Your task to perform on an android device: open app "DoorDash - Food Delivery" (install if not already installed), go to login, and select forgot password Image 0: 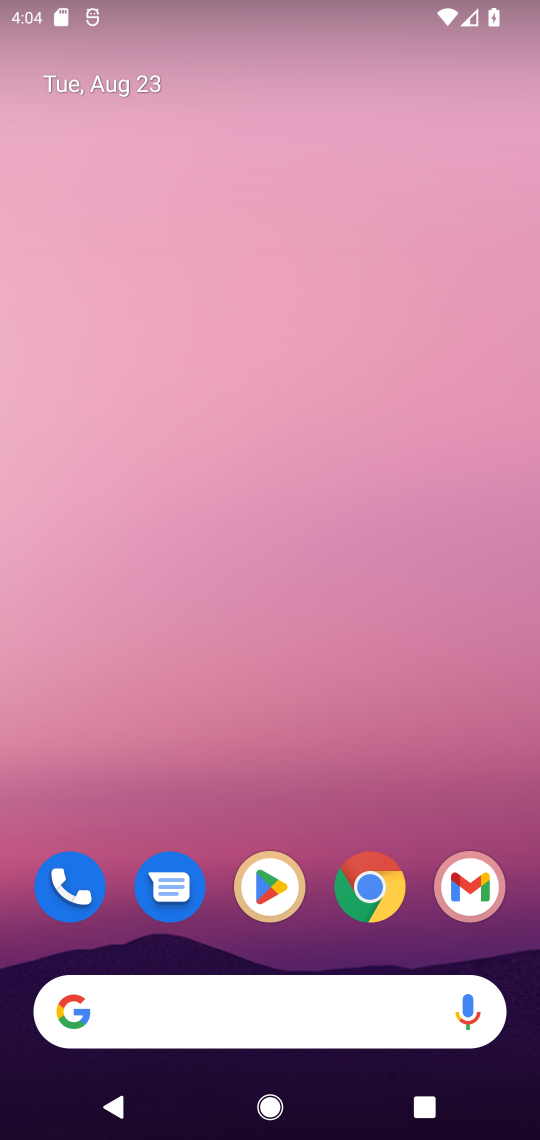
Step 0: click (278, 805)
Your task to perform on an android device: open app "DoorDash - Food Delivery" (install if not already installed), go to login, and select forgot password Image 1: 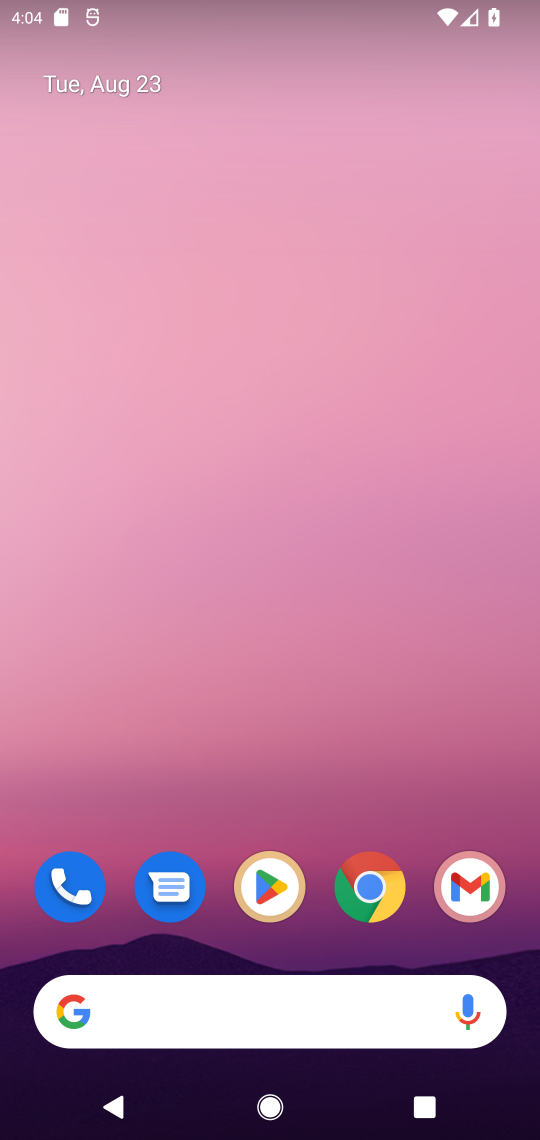
Step 1: click (270, 875)
Your task to perform on an android device: open app "DoorDash - Food Delivery" (install if not already installed), go to login, and select forgot password Image 2: 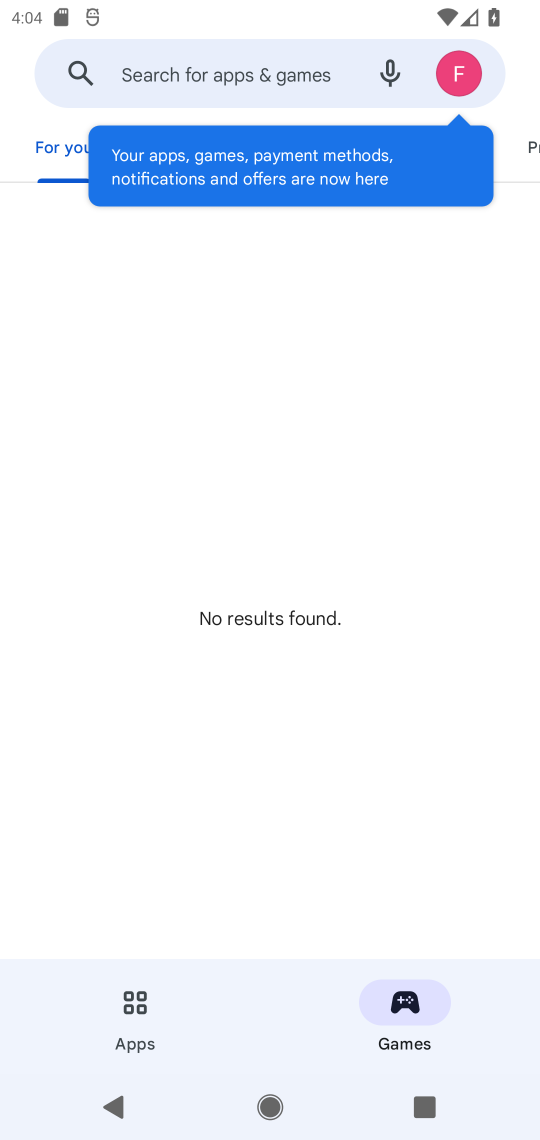
Step 2: click (216, 67)
Your task to perform on an android device: open app "DoorDash - Food Delivery" (install if not already installed), go to login, and select forgot password Image 3: 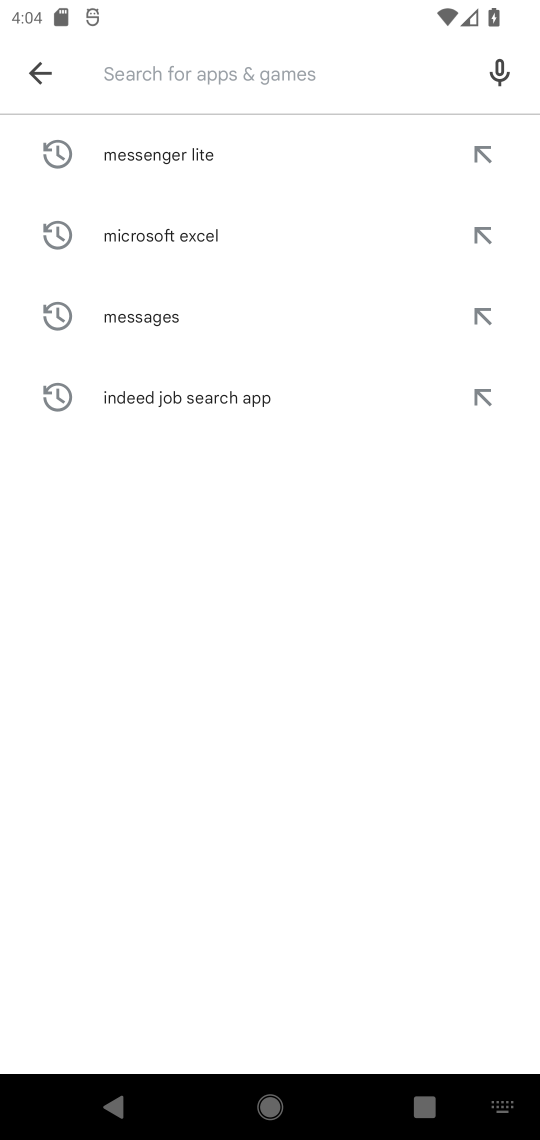
Step 3: type "DoorDash"
Your task to perform on an android device: open app "DoorDash - Food Delivery" (install if not already installed), go to login, and select forgot password Image 4: 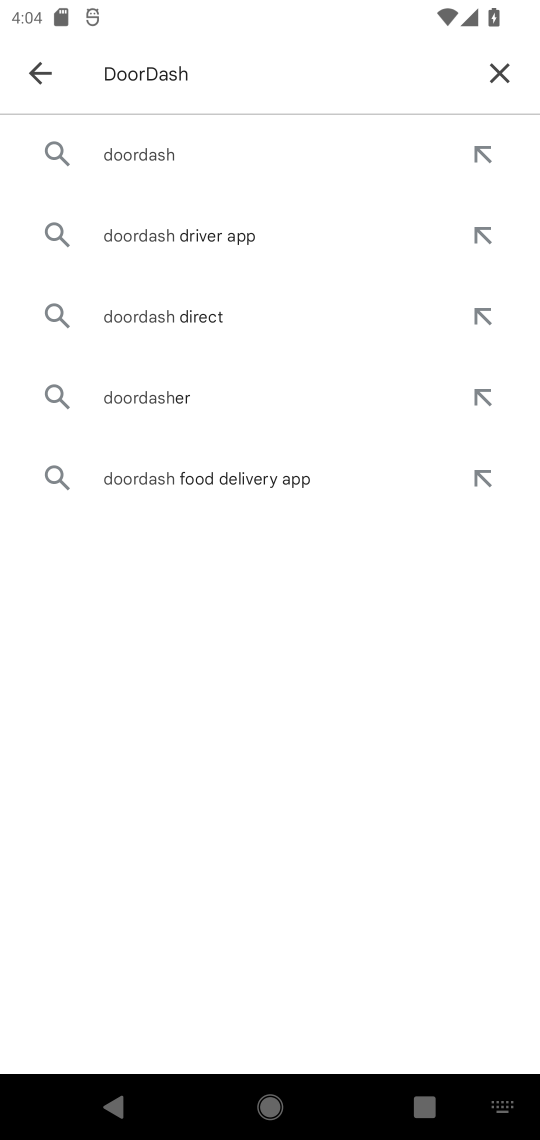
Step 4: click (144, 156)
Your task to perform on an android device: open app "DoorDash - Food Delivery" (install if not already installed), go to login, and select forgot password Image 5: 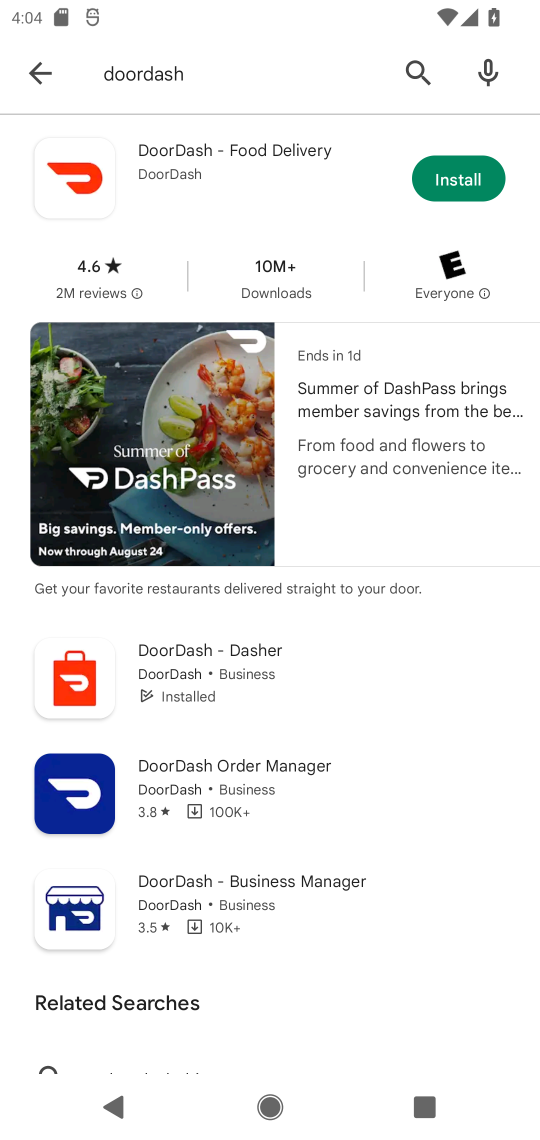
Step 5: click (477, 170)
Your task to perform on an android device: open app "DoorDash - Food Delivery" (install if not already installed), go to login, and select forgot password Image 6: 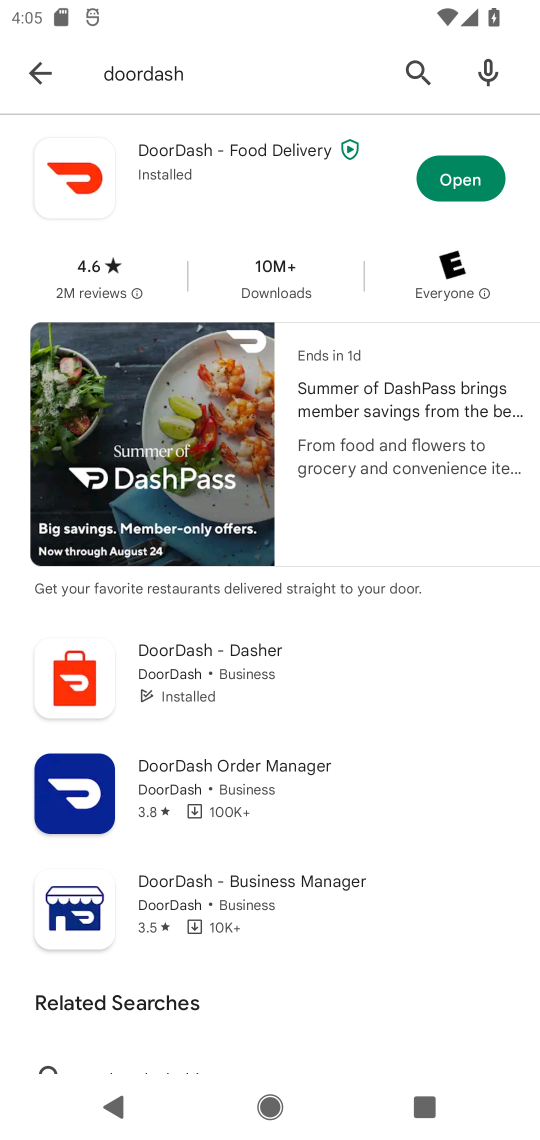
Step 6: click (477, 170)
Your task to perform on an android device: open app "DoorDash - Food Delivery" (install if not already installed), go to login, and select forgot password Image 7: 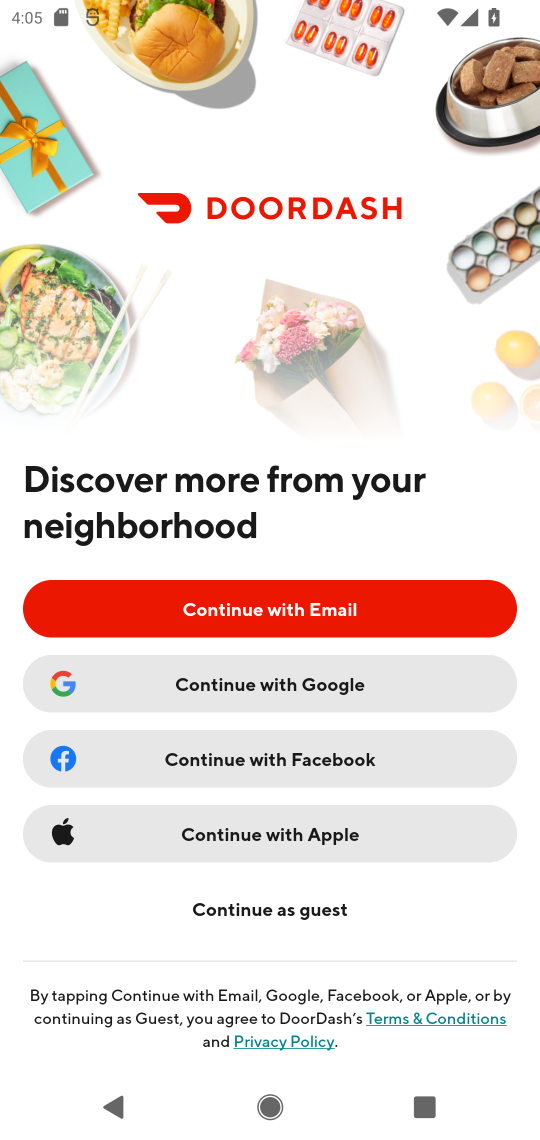
Step 7: click (285, 610)
Your task to perform on an android device: open app "DoorDash - Food Delivery" (install if not already installed), go to login, and select forgot password Image 8: 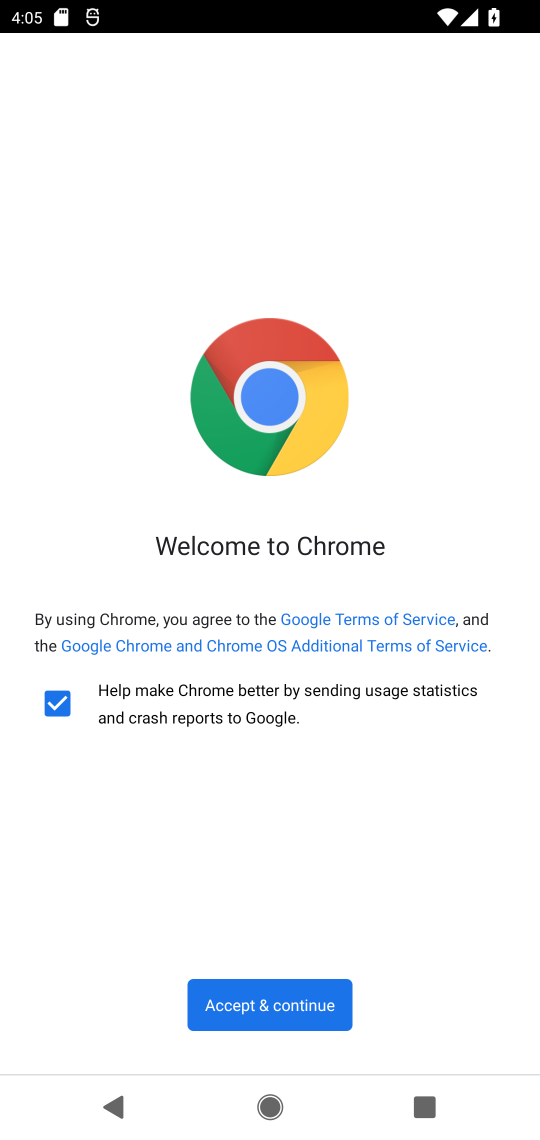
Step 8: click (243, 1003)
Your task to perform on an android device: open app "DoorDash - Food Delivery" (install if not already installed), go to login, and select forgot password Image 9: 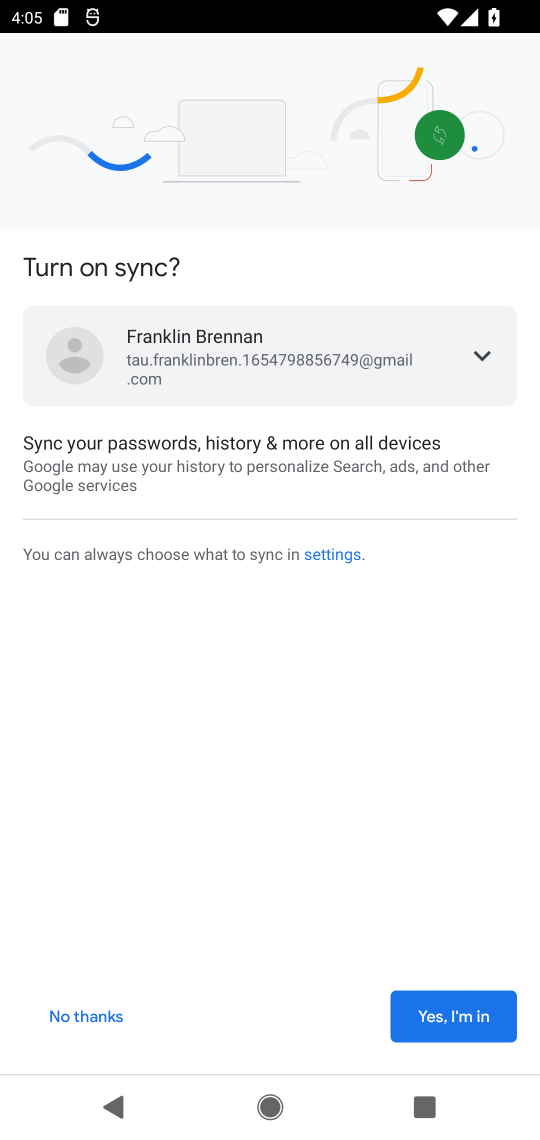
Step 9: click (463, 1038)
Your task to perform on an android device: open app "DoorDash - Food Delivery" (install if not already installed), go to login, and select forgot password Image 10: 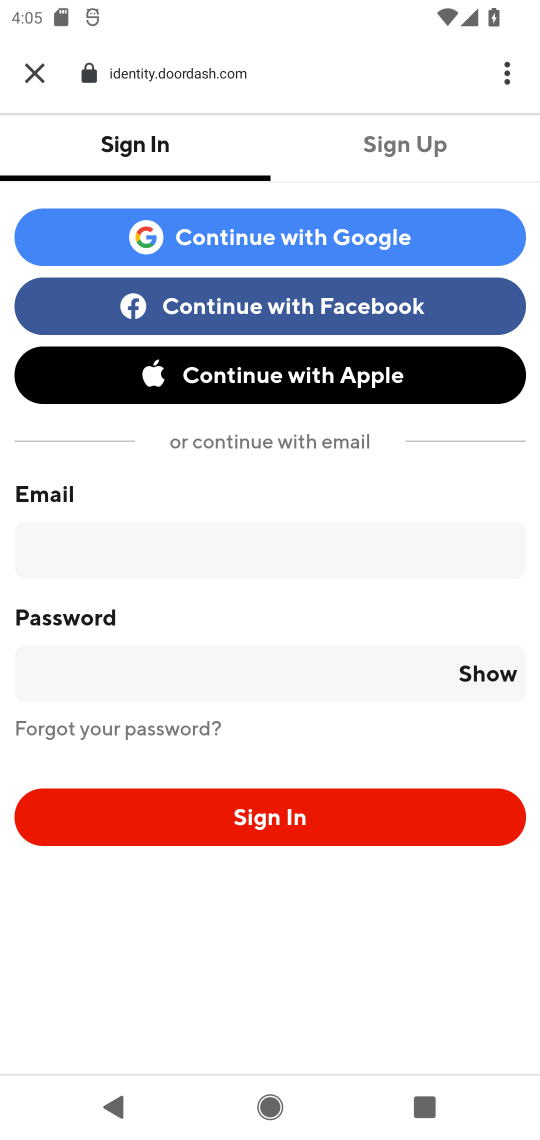
Step 10: click (83, 728)
Your task to perform on an android device: open app "DoorDash - Food Delivery" (install if not already installed), go to login, and select forgot password Image 11: 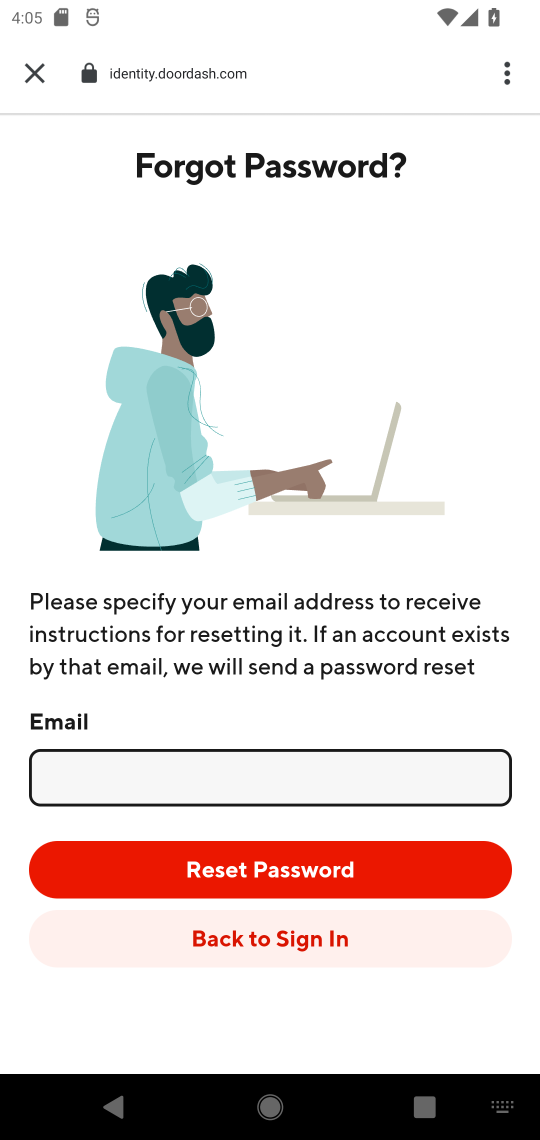
Step 11: task complete